Your task to perform on an android device: Open Google Chrome Image 0: 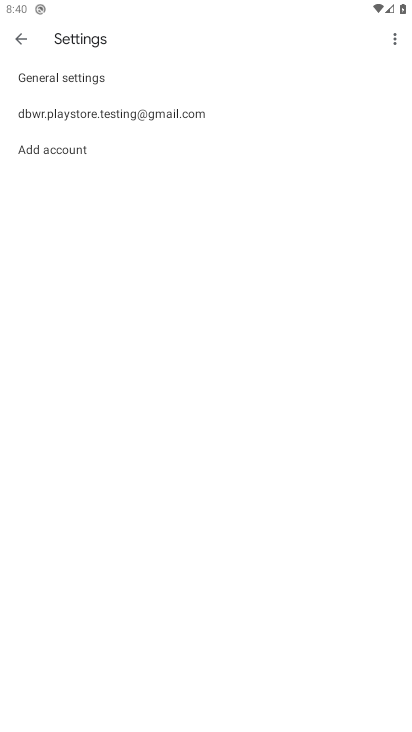
Step 0: press home button
Your task to perform on an android device: Open Google Chrome Image 1: 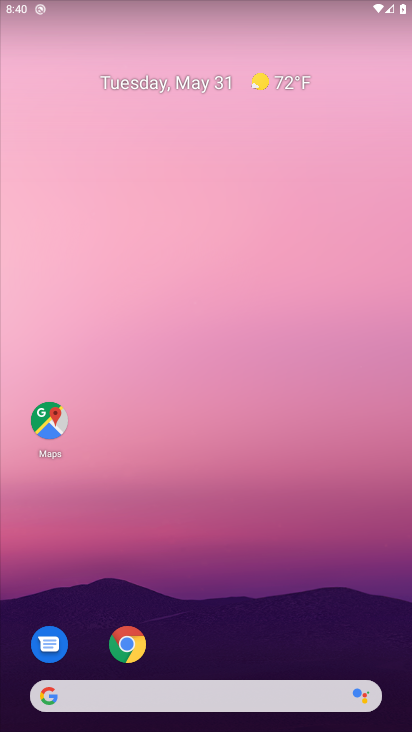
Step 1: click (121, 634)
Your task to perform on an android device: Open Google Chrome Image 2: 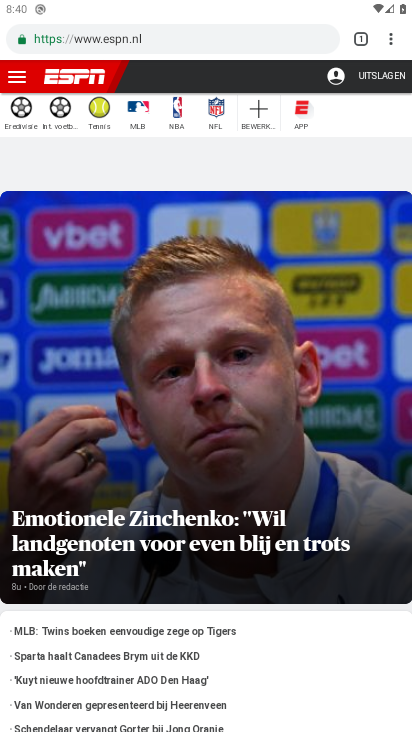
Step 2: click (359, 23)
Your task to perform on an android device: Open Google Chrome Image 3: 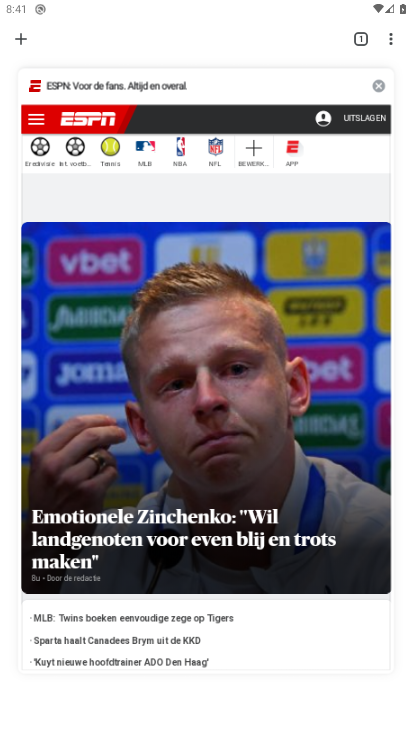
Step 3: click (373, 85)
Your task to perform on an android device: Open Google Chrome Image 4: 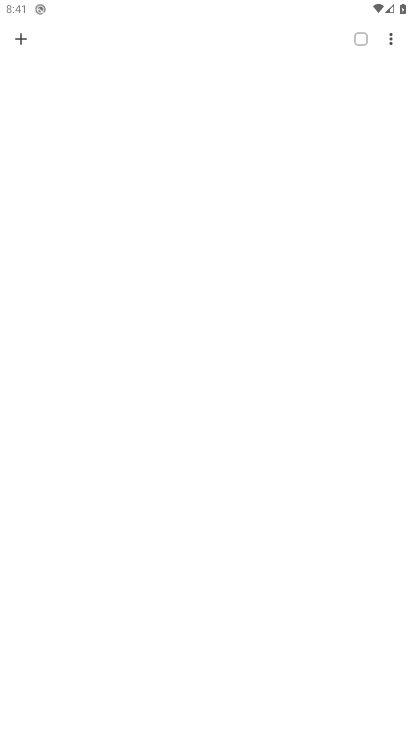
Step 4: click (19, 34)
Your task to perform on an android device: Open Google Chrome Image 5: 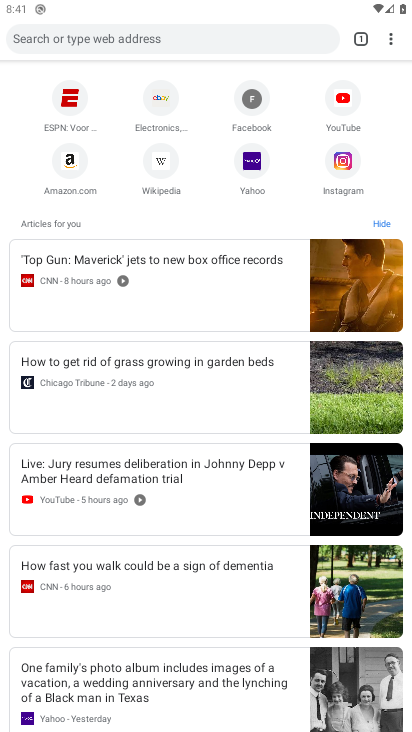
Step 5: task complete